Your task to perform on an android device: turn off wifi Image 0: 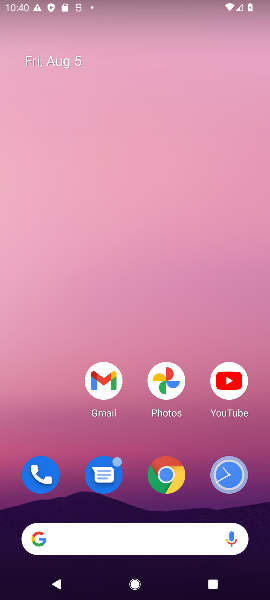
Step 0: drag from (132, 505) to (124, 8)
Your task to perform on an android device: turn off wifi Image 1: 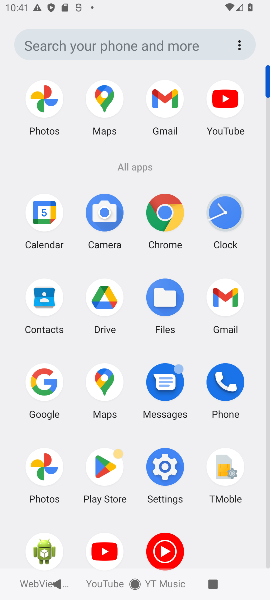
Step 1: click (166, 480)
Your task to perform on an android device: turn off wifi Image 2: 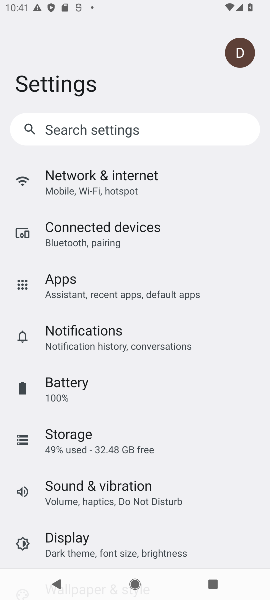
Step 2: click (110, 186)
Your task to perform on an android device: turn off wifi Image 3: 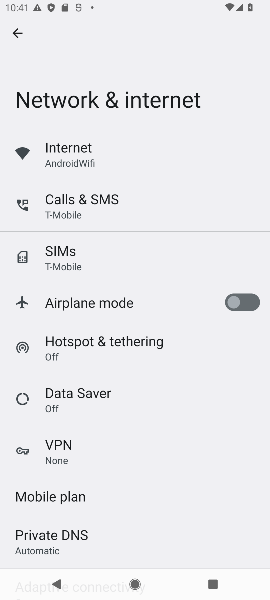
Step 3: click (76, 160)
Your task to perform on an android device: turn off wifi Image 4: 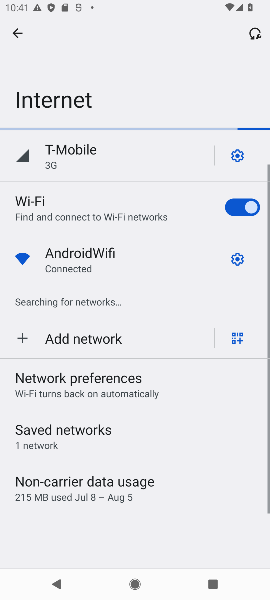
Step 4: click (230, 209)
Your task to perform on an android device: turn off wifi Image 5: 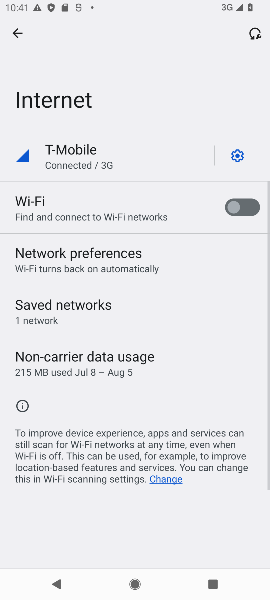
Step 5: task complete